Your task to perform on an android device: turn on javascript in the chrome app Image 0: 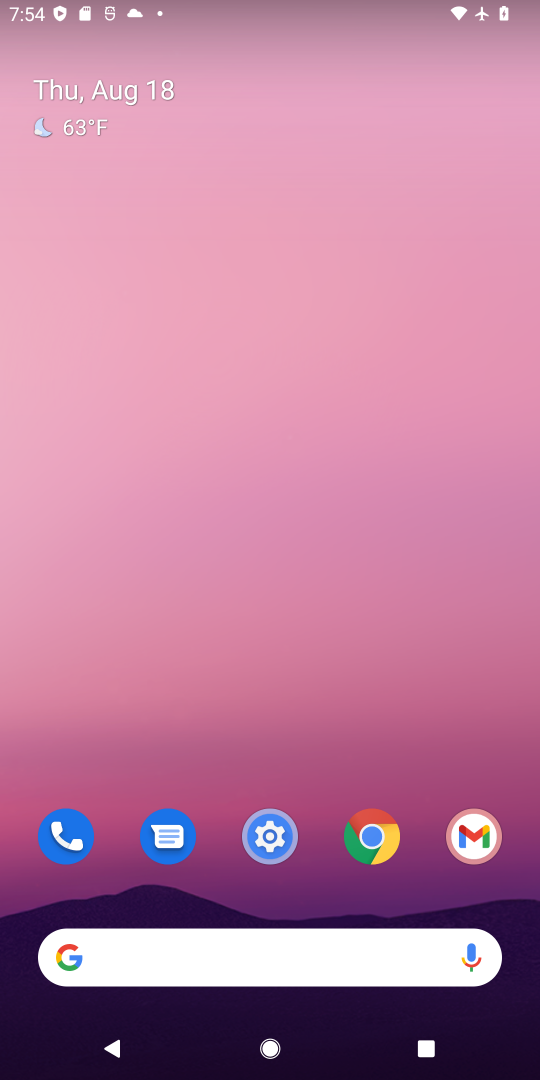
Step 0: drag from (318, 740) to (335, 13)
Your task to perform on an android device: turn on javascript in the chrome app Image 1: 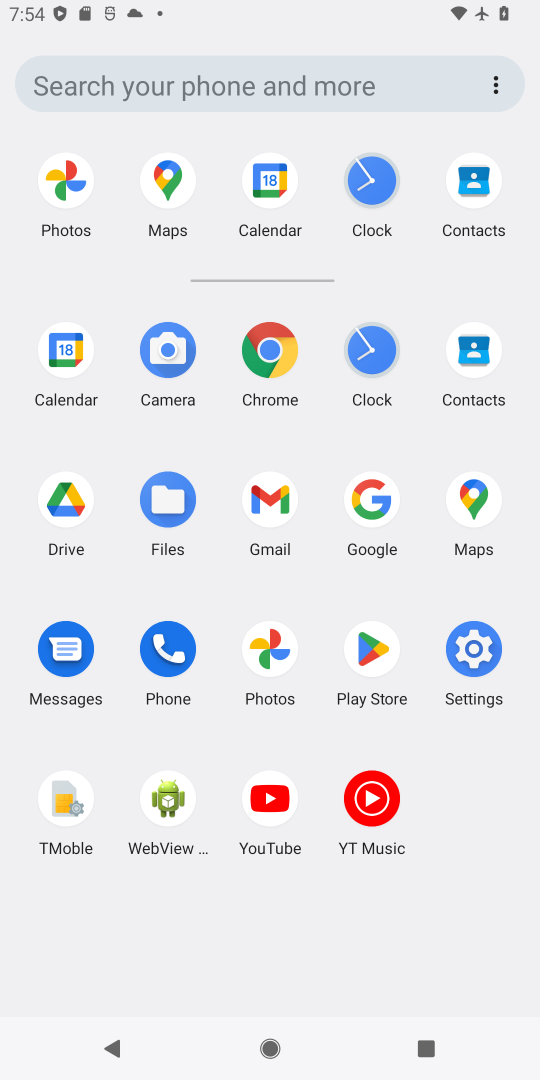
Step 1: click (272, 349)
Your task to perform on an android device: turn on javascript in the chrome app Image 2: 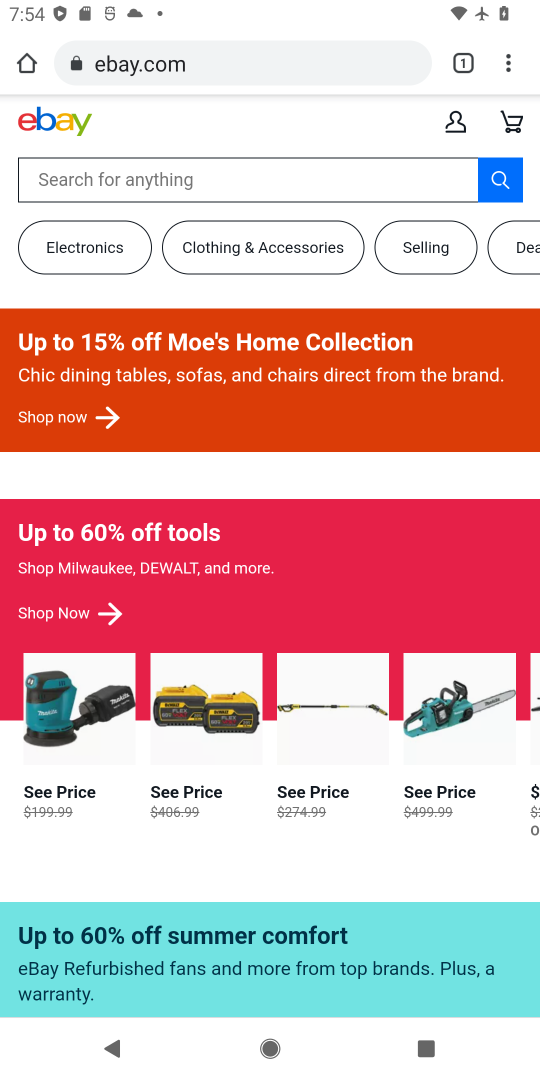
Step 2: drag from (517, 55) to (292, 825)
Your task to perform on an android device: turn on javascript in the chrome app Image 3: 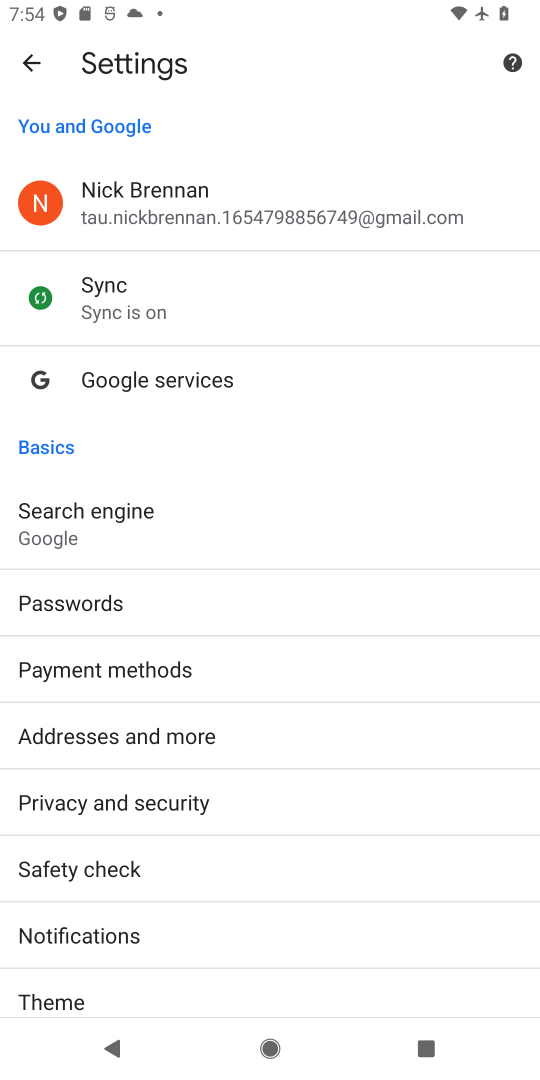
Step 3: drag from (188, 900) to (338, 175)
Your task to perform on an android device: turn on javascript in the chrome app Image 4: 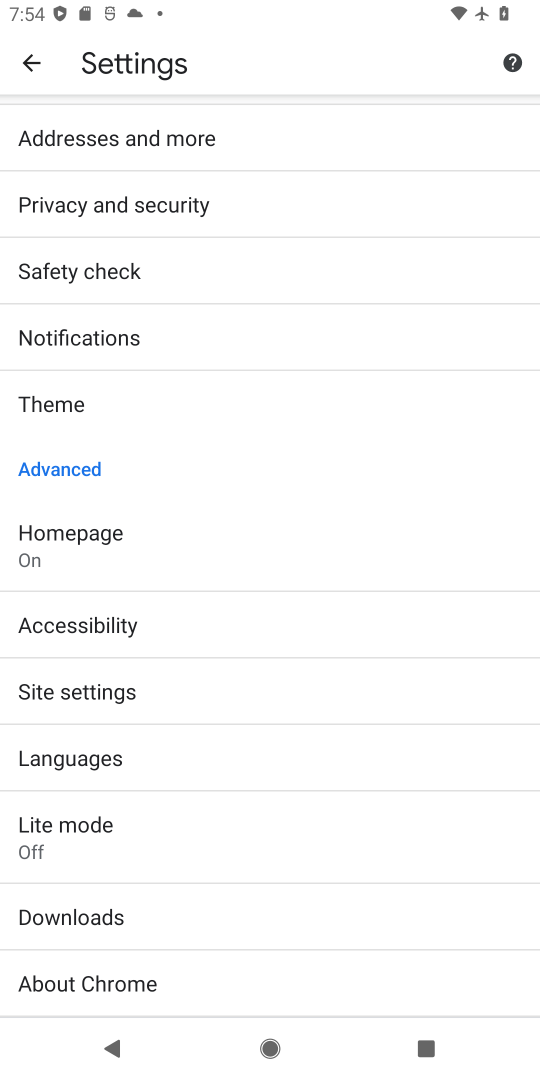
Step 4: drag from (279, 856) to (314, 352)
Your task to perform on an android device: turn on javascript in the chrome app Image 5: 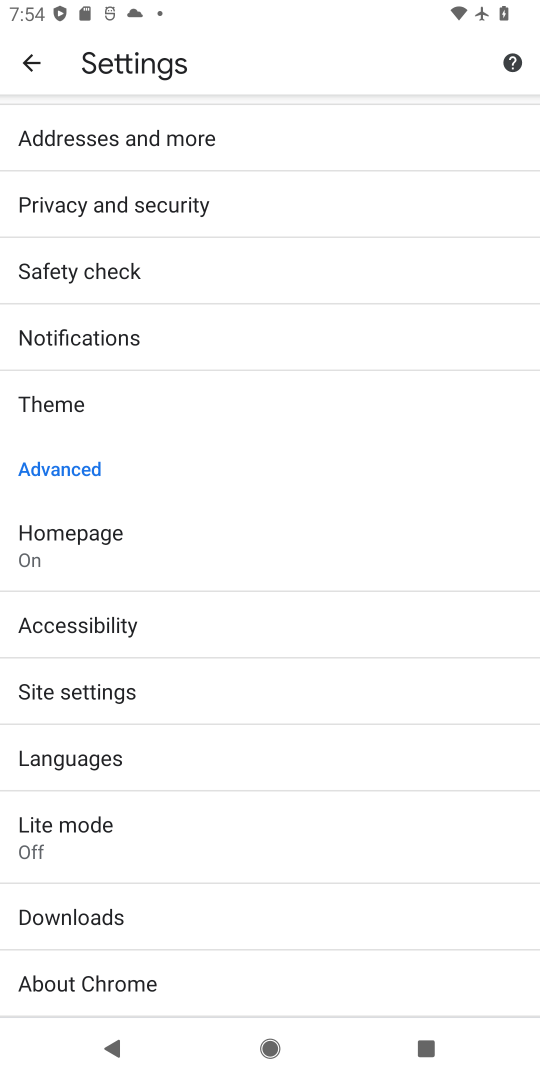
Step 5: click (88, 677)
Your task to perform on an android device: turn on javascript in the chrome app Image 6: 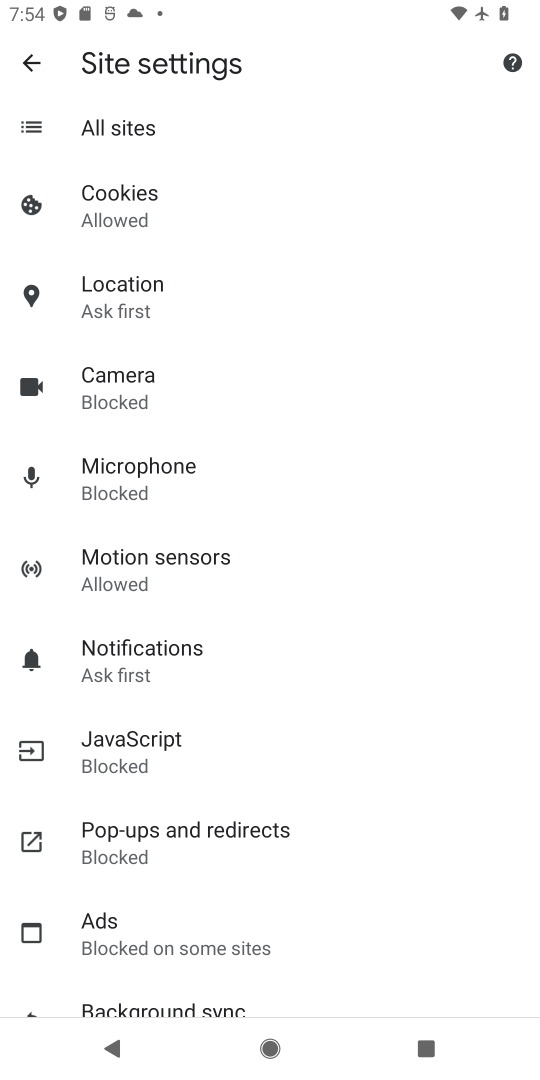
Step 6: click (97, 756)
Your task to perform on an android device: turn on javascript in the chrome app Image 7: 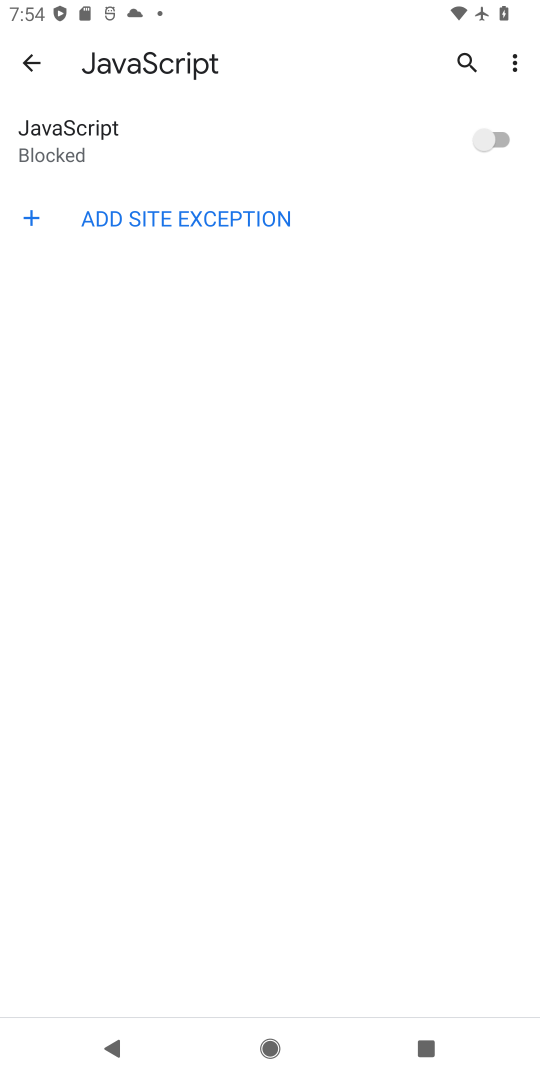
Step 7: click (507, 118)
Your task to perform on an android device: turn on javascript in the chrome app Image 8: 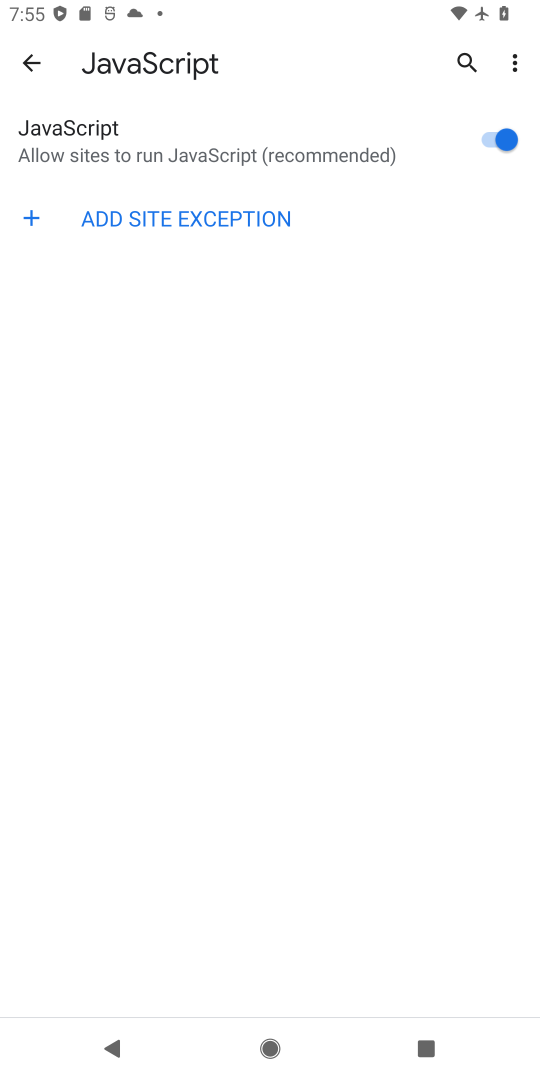
Step 8: task complete